Your task to perform on an android device: Show me recent news Image 0: 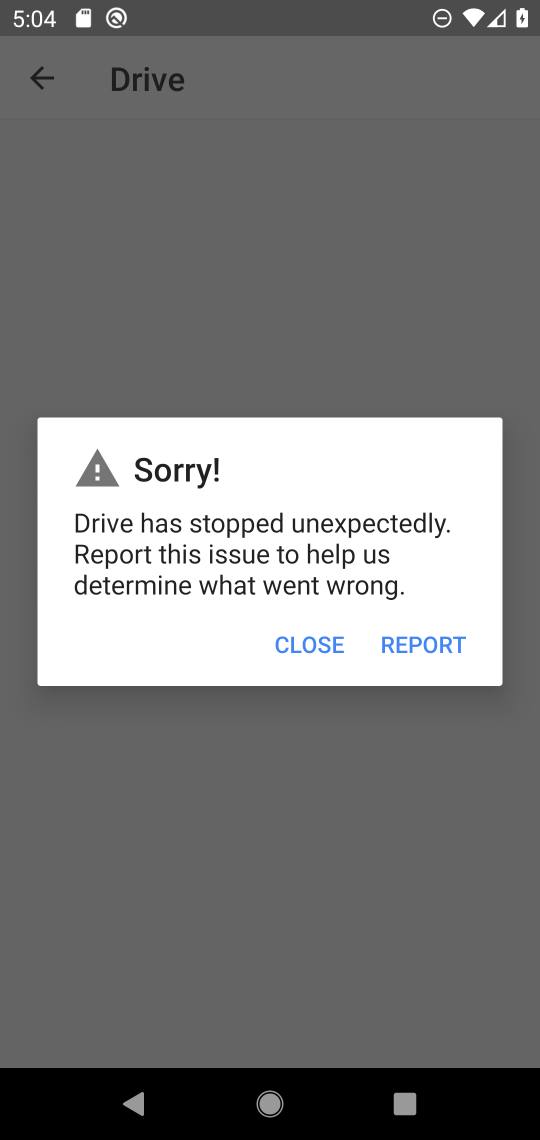
Step 0: press home button
Your task to perform on an android device: Show me recent news Image 1: 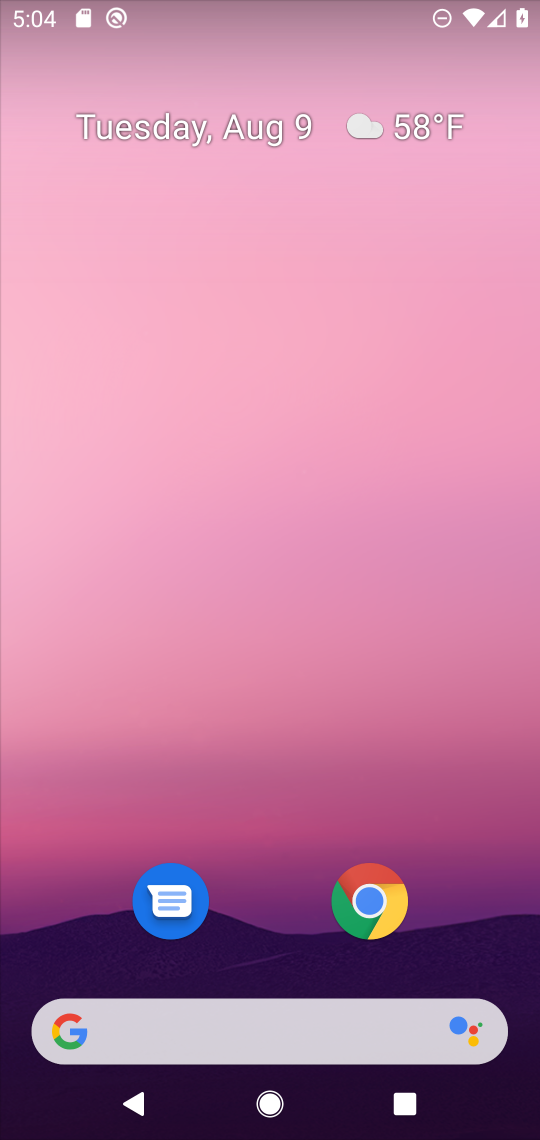
Step 1: drag from (300, 917) to (494, 24)
Your task to perform on an android device: Show me recent news Image 2: 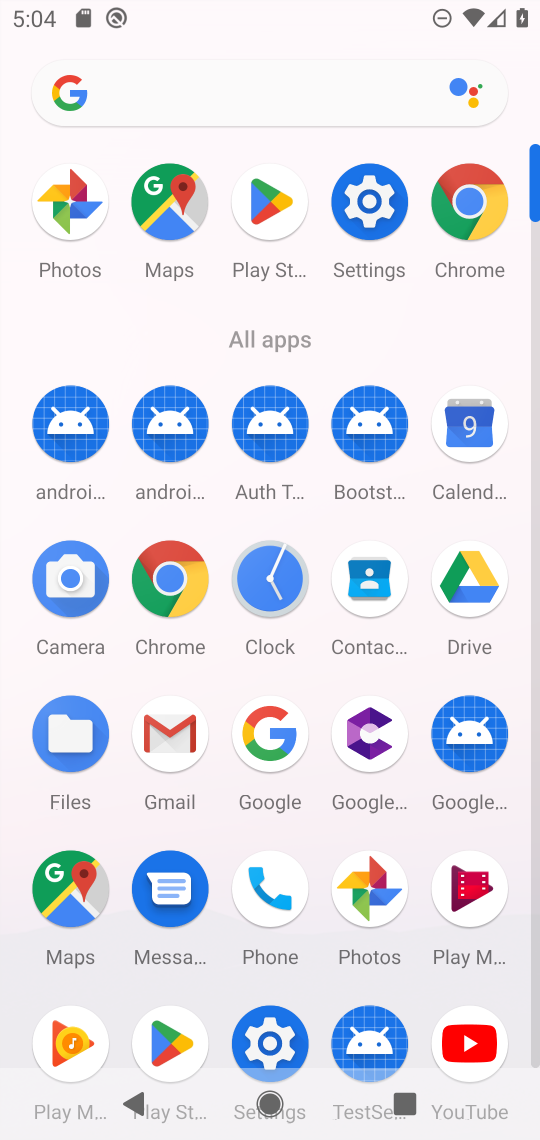
Step 2: click (174, 584)
Your task to perform on an android device: Show me recent news Image 3: 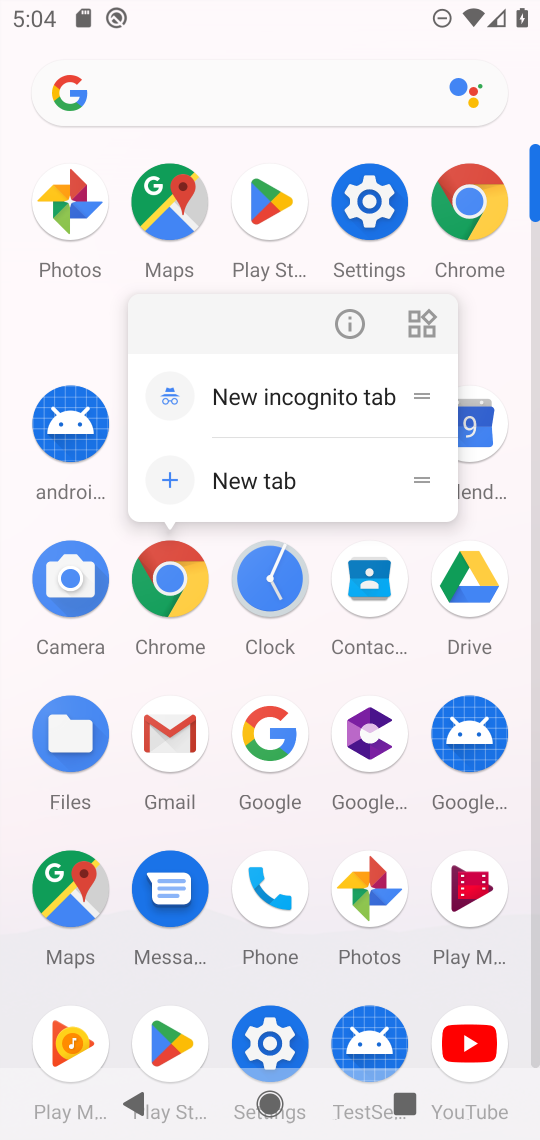
Step 3: click (174, 584)
Your task to perform on an android device: Show me recent news Image 4: 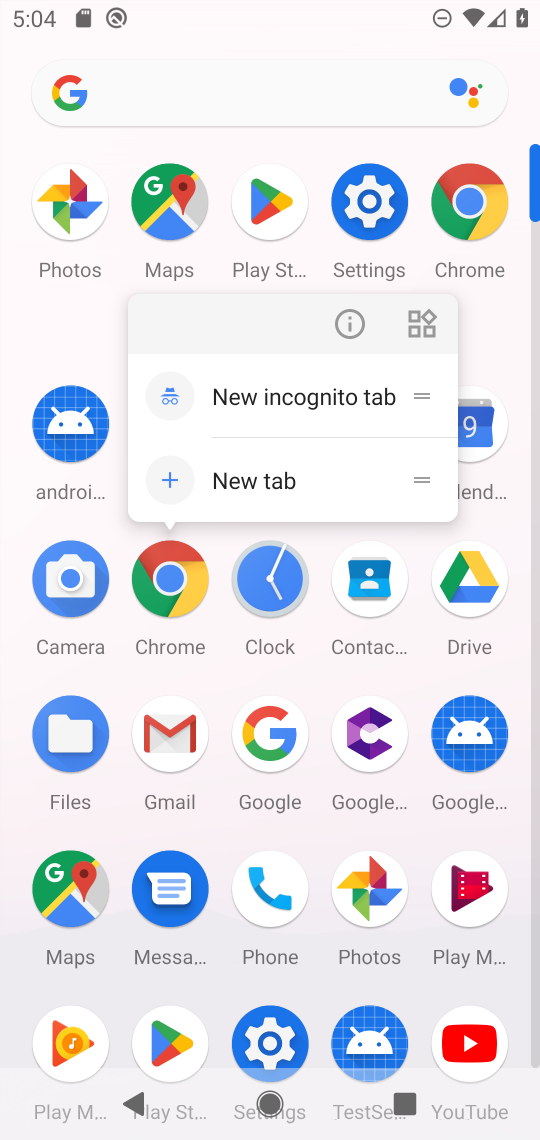
Step 4: click (174, 584)
Your task to perform on an android device: Show me recent news Image 5: 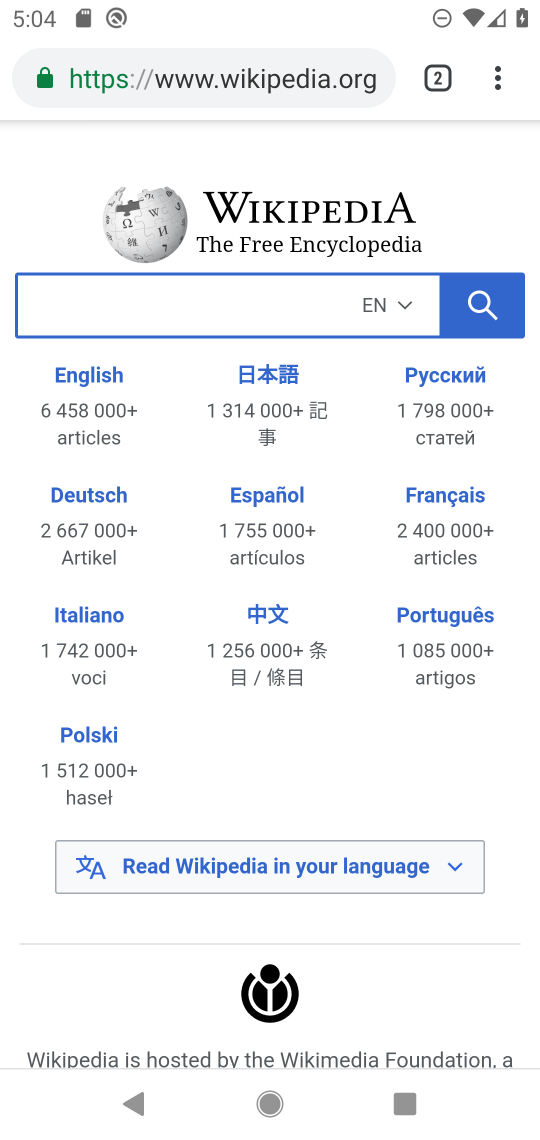
Step 5: click (156, 67)
Your task to perform on an android device: Show me recent news Image 6: 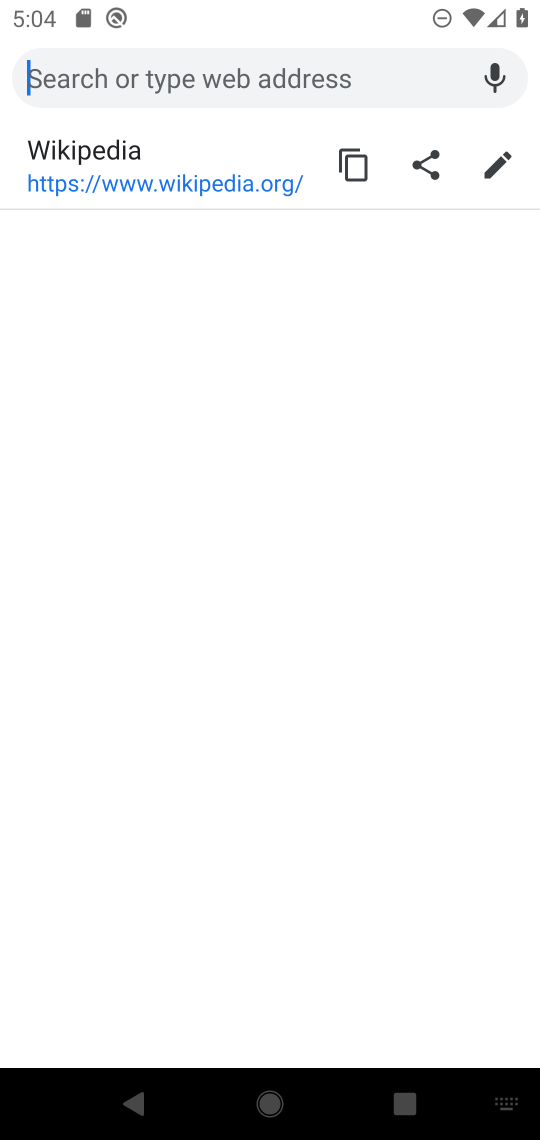
Step 6: type "Show me recent news"
Your task to perform on an android device: Show me recent news Image 7: 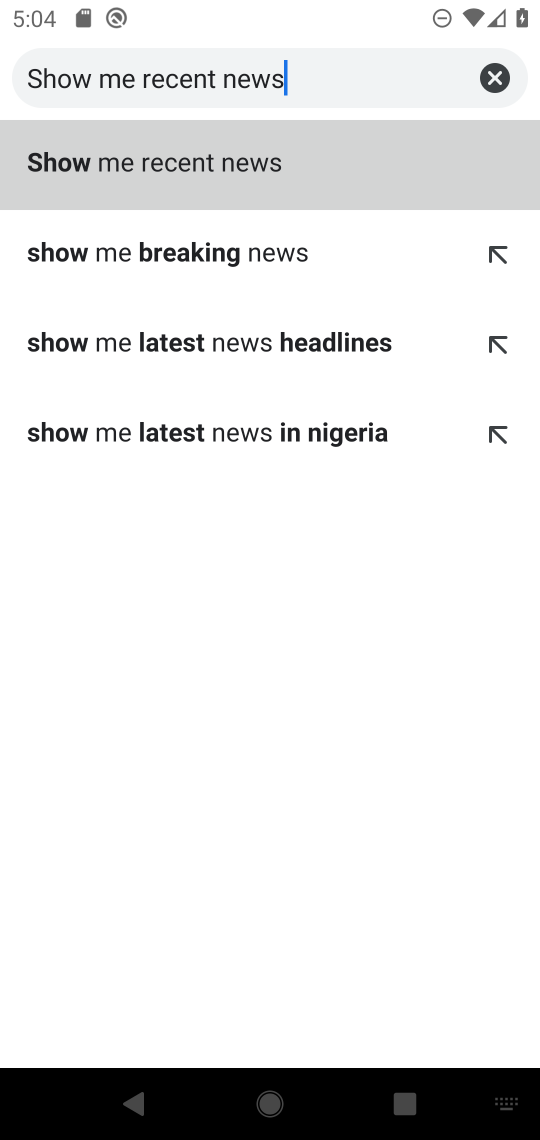
Step 7: click (142, 173)
Your task to perform on an android device: Show me recent news Image 8: 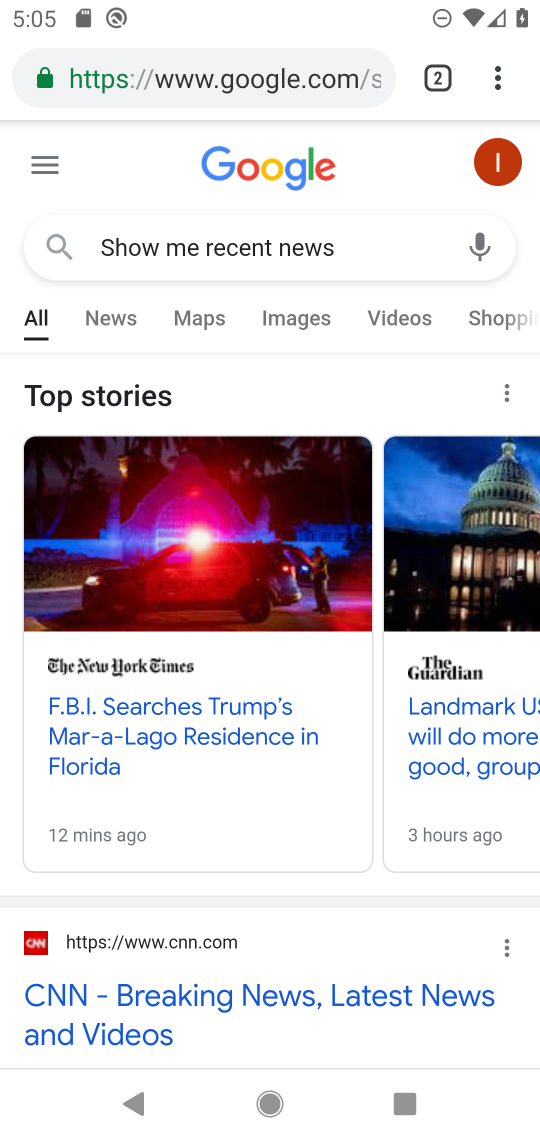
Step 8: click (116, 299)
Your task to perform on an android device: Show me recent news Image 9: 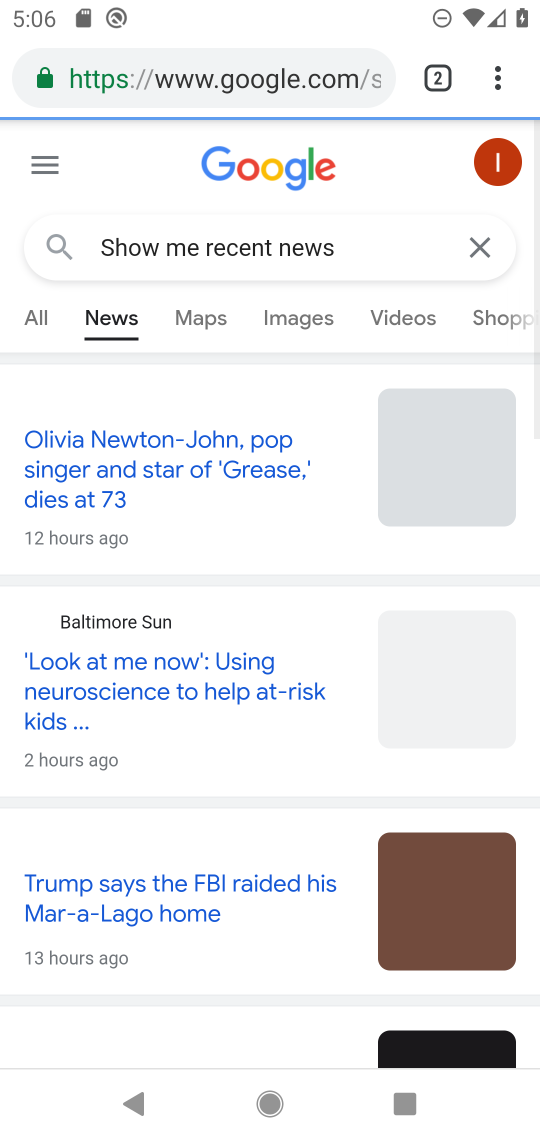
Step 9: task complete